Your task to perform on an android device: Go to display settings Image 0: 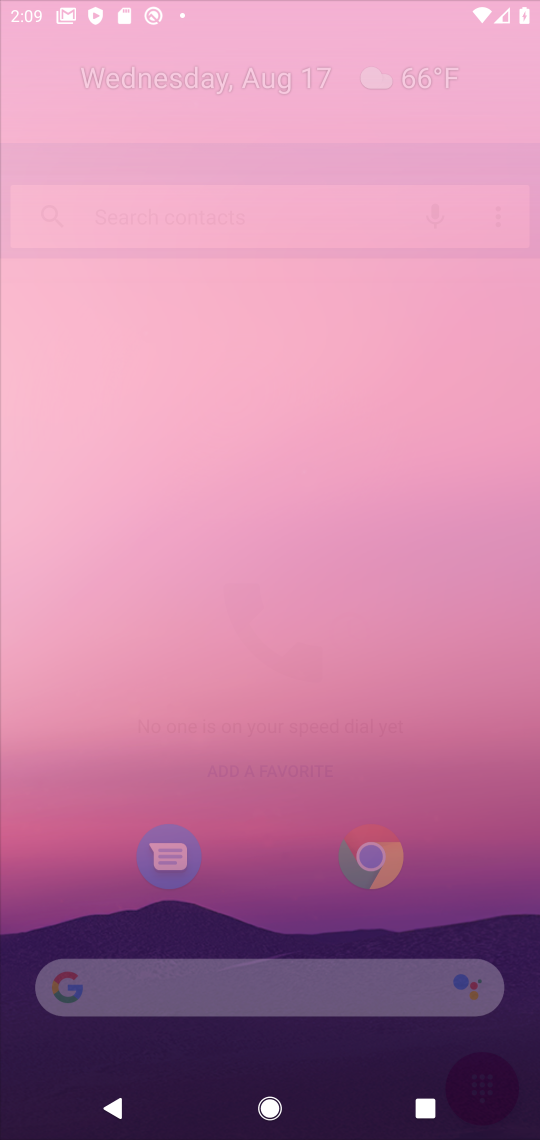
Step 0: press home button
Your task to perform on an android device: Go to display settings Image 1: 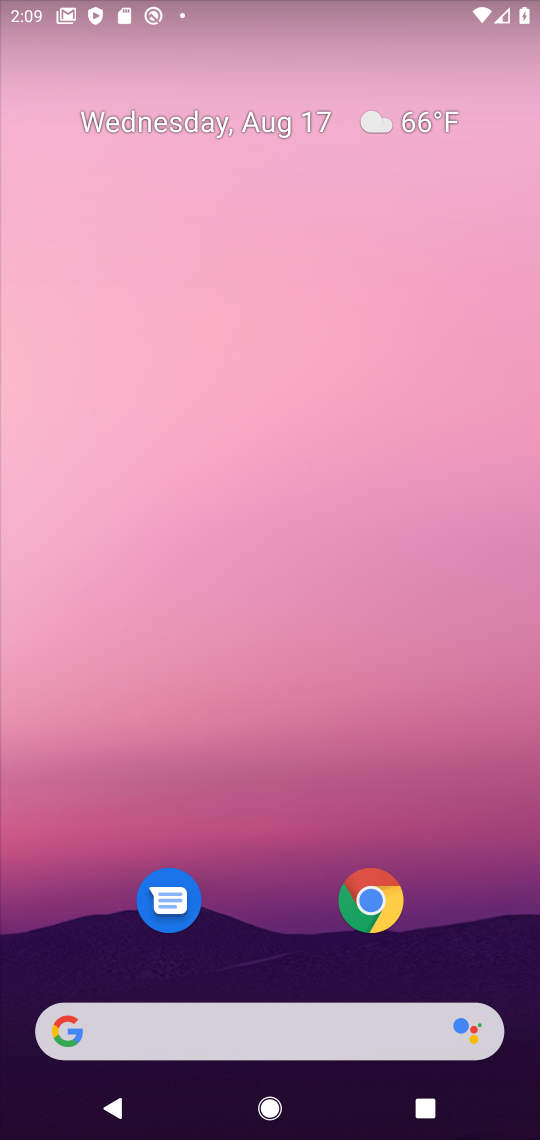
Step 1: drag from (279, 907) to (412, 70)
Your task to perform on an android device: Go to display settings Image 2: 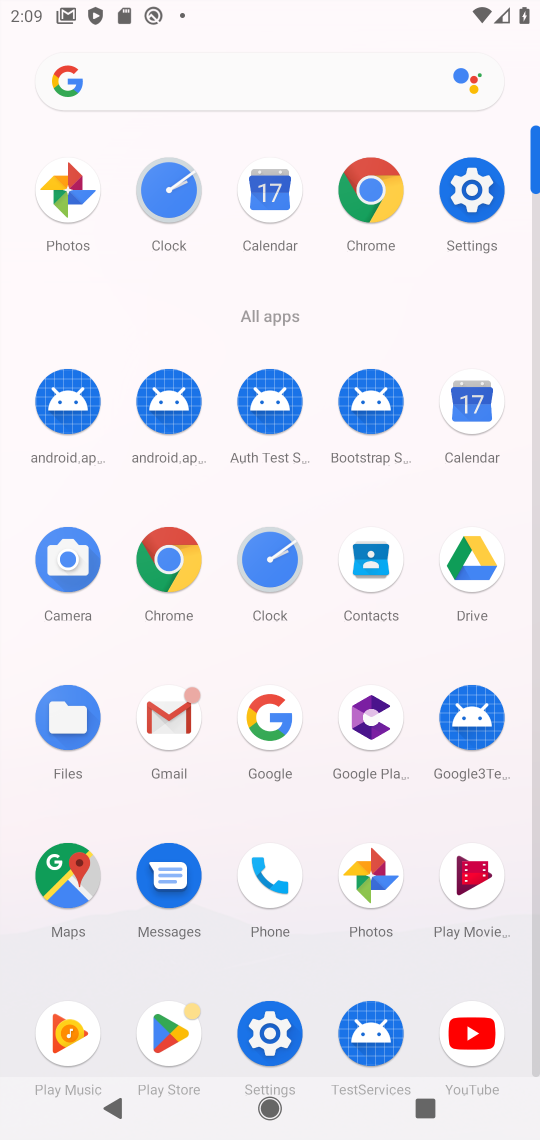
Step 2: click (464, 199)
Your task to perform on an android device: Go to display settings Image 3: 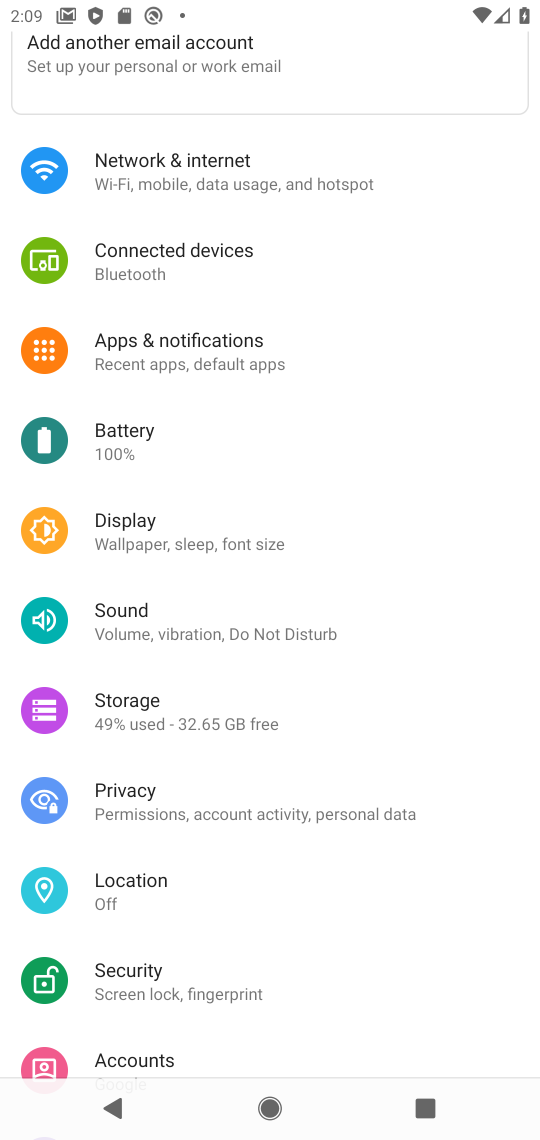
Step 3: click (120, 517)
Your task to perform on an android device: Go to display settings Image 4: 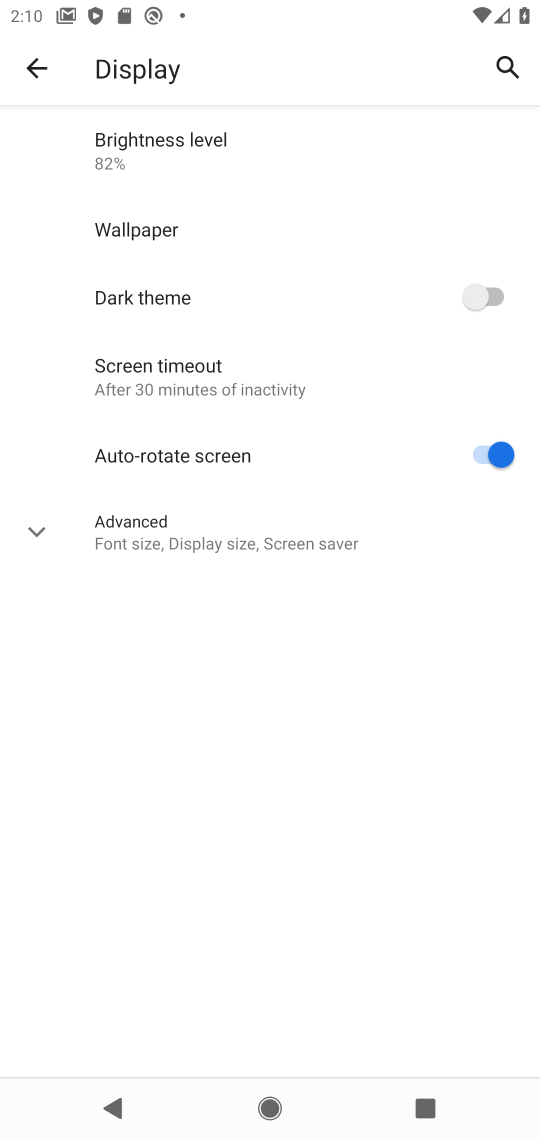
Step 4: task complete